Your task to perform on an android device: Set the phone to "Do not disturb". Image 0: 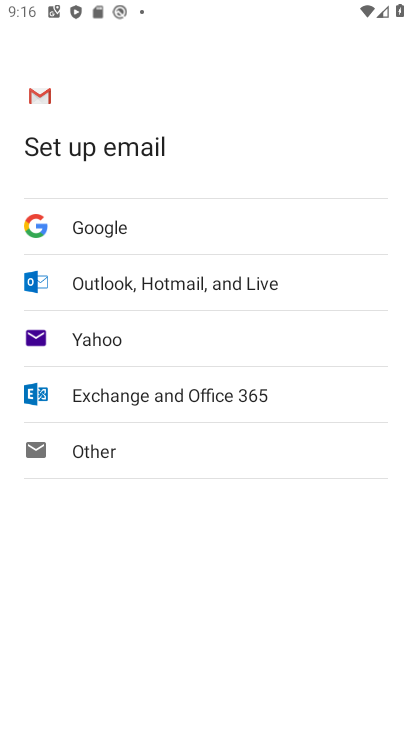
Step 0: press home button
Your task to perform on an android device: Set the phone to "Do not disturb". Image 1: 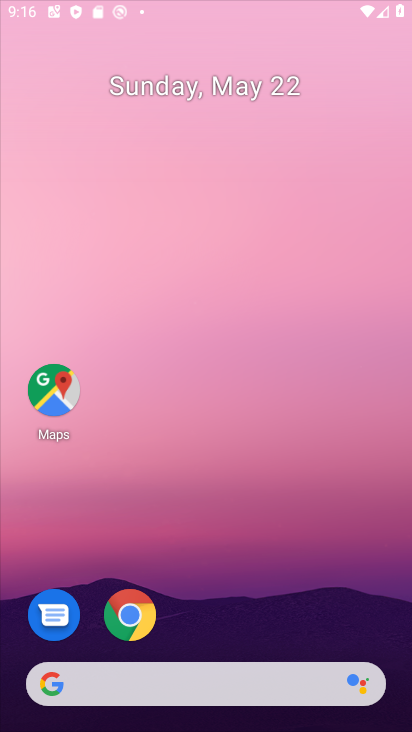
Step 1: drag from (182, 0) to (206, 426)
Your task to perform on an android device: Set the phone to "Do not disturb". Image 2: 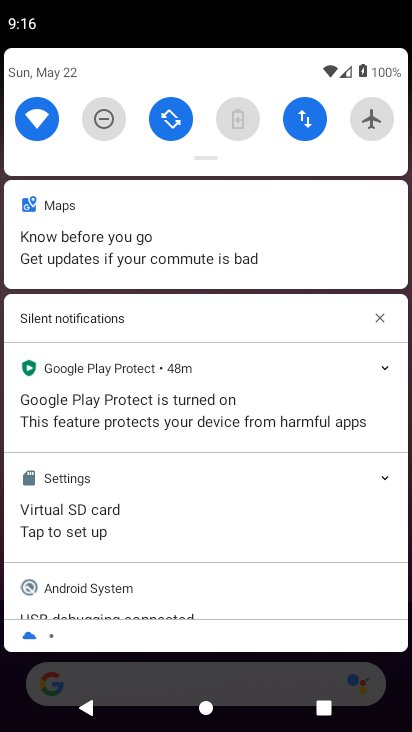
Step 2: click (97, 116)
Your task to perform on an android device: Set the phone to "Do not disturb". Image 3: 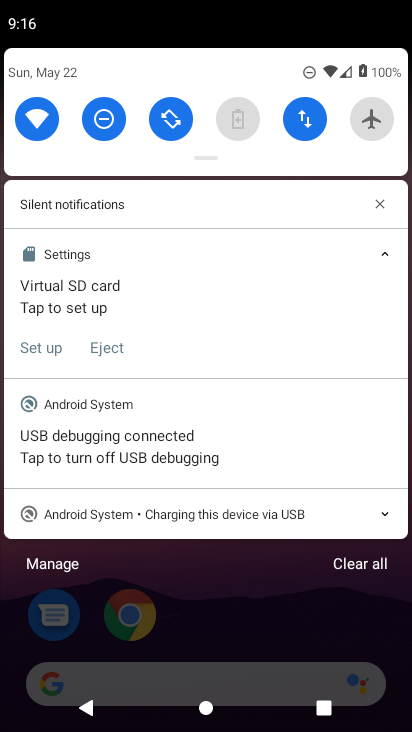
Step 3: click (102, 114)
Your task to perform on an android device: Set the phone to "Do not disturb". Image 4: 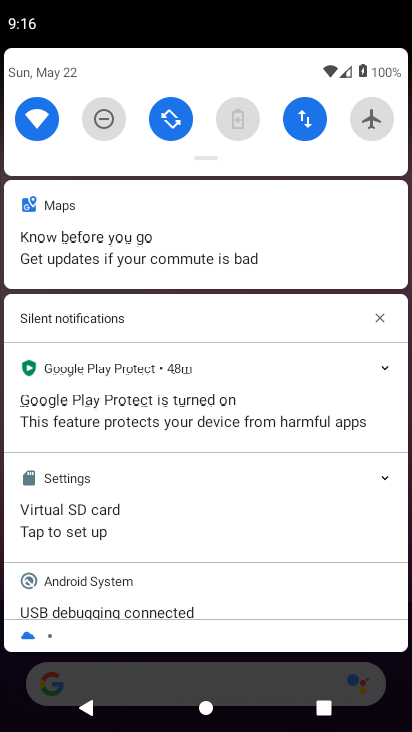
Step 4: click (102, 114)
Your task to perform on an android device: Set the phone to "Do not disturb". Image 5: 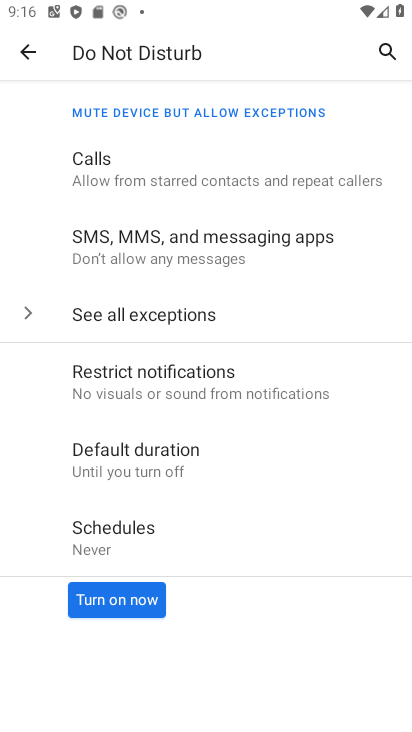
Step 5: click (110, 590)
Your task to perform on an android device: Set the phone to "Do not disturb". Image 6: 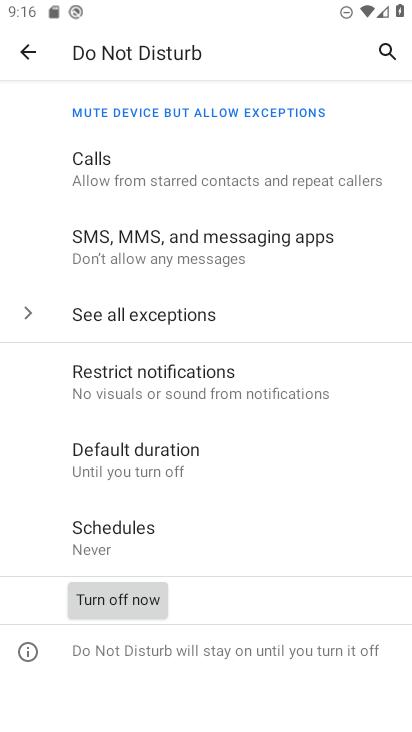
Step 6: task complete